Your task to perform on an android device: change the upload size in google photos Image 0: 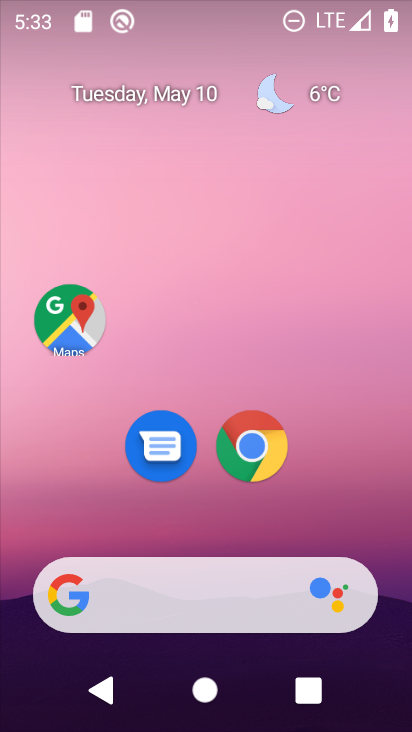
Step 0: click (259, 448)
Your task to perform on an android device: change the upload size in google photos Image 1: 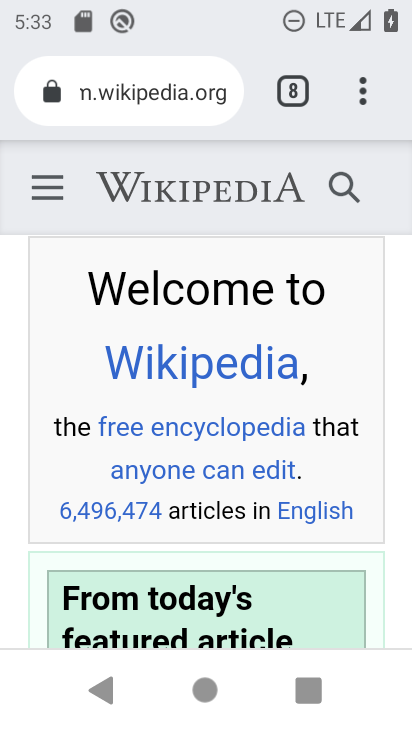
Step 1: press home button
Your task to perform on an android device: change the upload size in google photos Image 2: 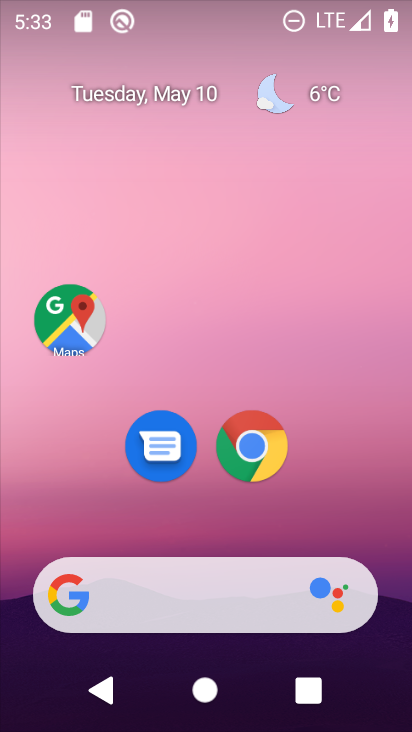
Step 2: drag from (306, 512) to (270, 114)
Your task to perform on an android device: change the upload size in google photos Image 3: 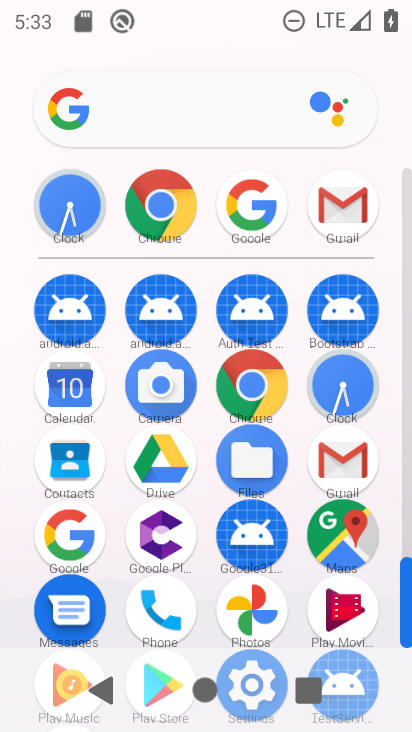
Step 3: click (262, 606)
Your task to perform on an android device: change the upload size in google photos Image 4: 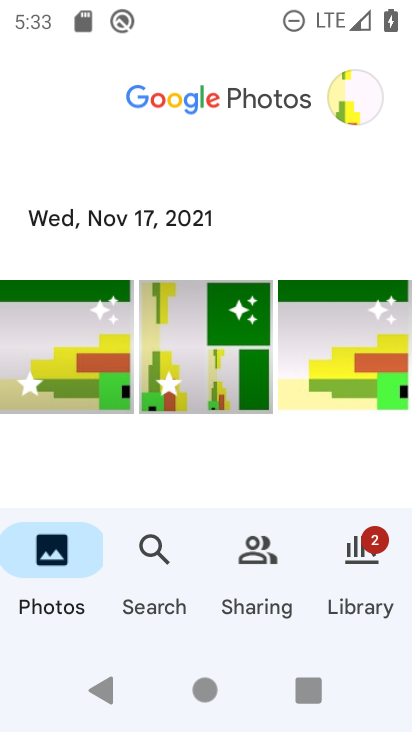
Step 4: click (352, 98)
Your task to perform on an android device: change the upload size in google photos Image 5: 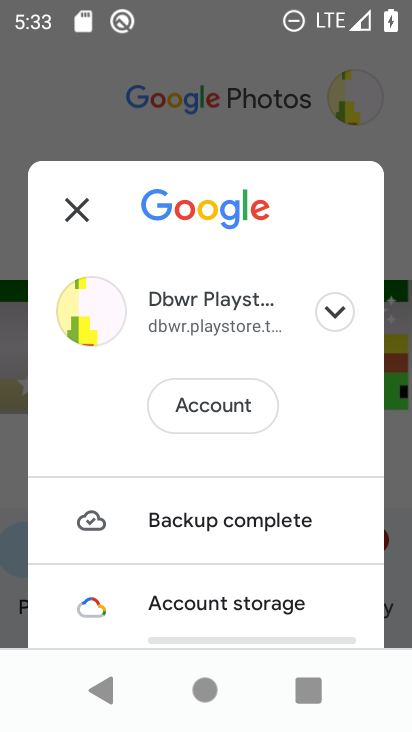
Step 5: drag from (212, 548) to (251, 186)
Your task to perform on an android device: change the upload size in google photos Image 6: 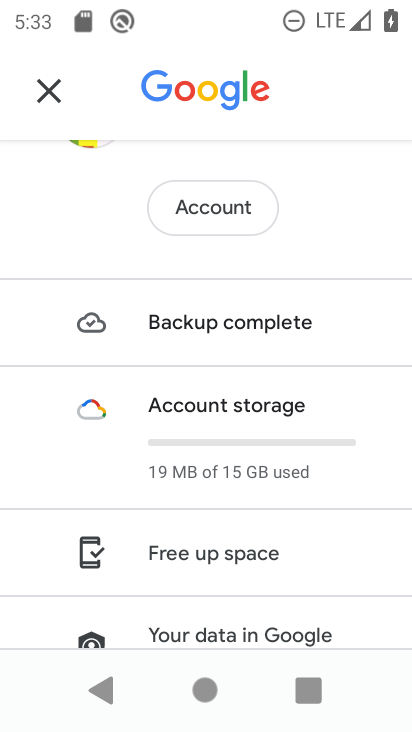
Step 6: drag from (203, 557) to (248, 247)
Your task to perform on an android device: change the upload size in google photos Image 7: 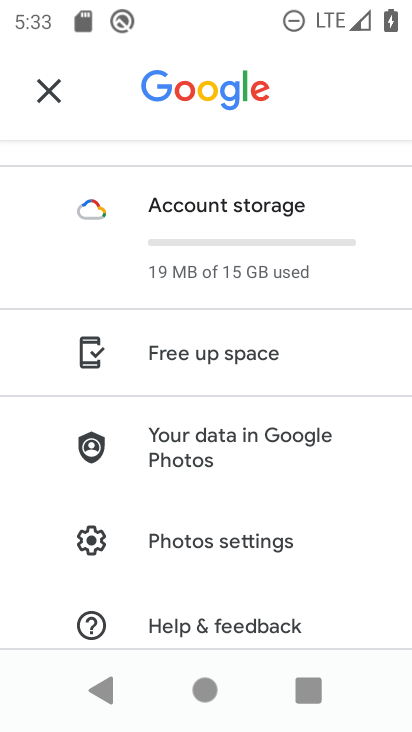
Step 7: click (219, 536)
Your task to perform on an android device: change the upload size in google photos Image 8: 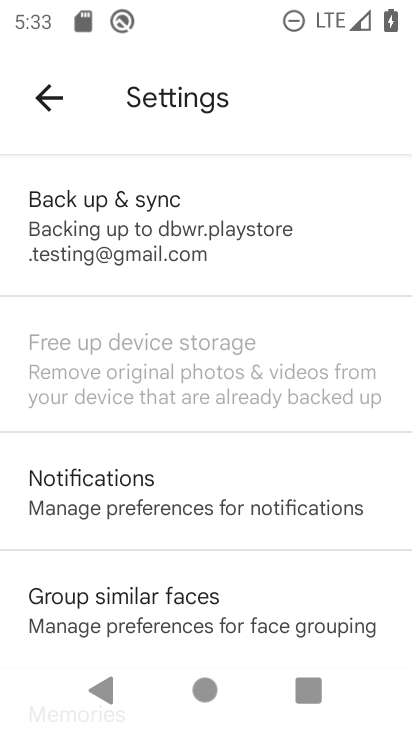
Step 8: click (143, 201)
Your task to perform on an android device: change the upload size in google photos Image 9: 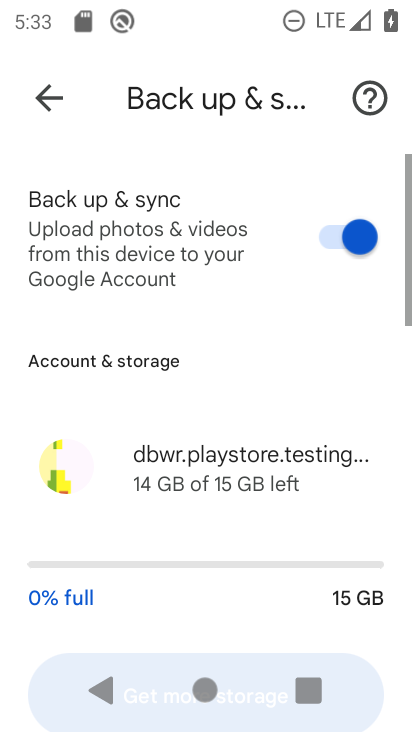
Step 9: drag from (143, 483) to (229, 196)
Your task to perform on an android device: change the upload size in google photos Image 10: 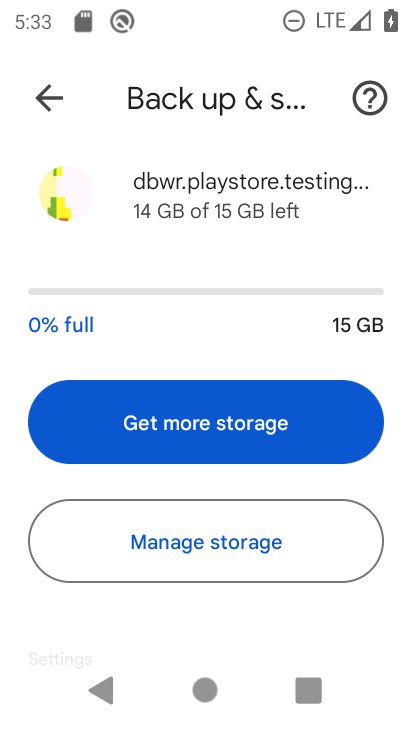
Step 10: drag from (124, 602) to (198, 223)
Your task to perform on an android device: change the upload size in google photos Image 11: 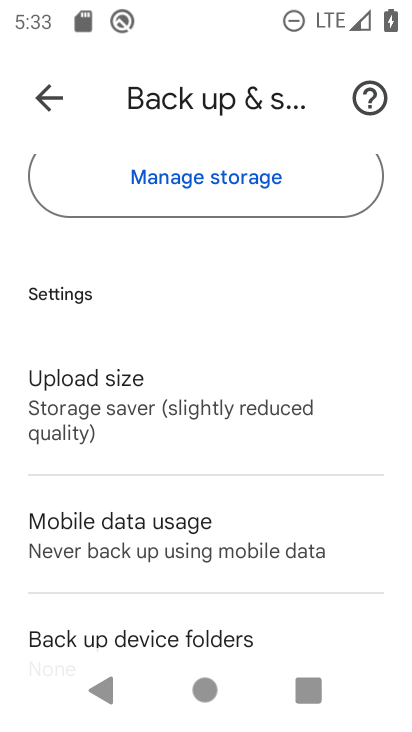
Step 11: click (133, 399)
Your task to perform on an android device: change the upload size in google photos Image 12: 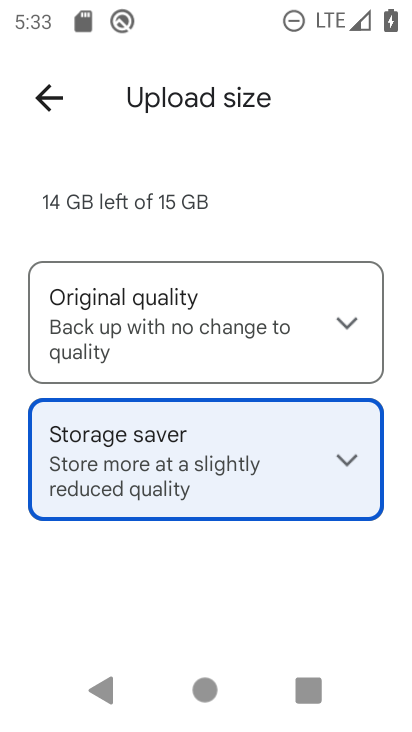
Step 12: click (194, 338)
Your task to perform on an android device: change the upload size in google photos Image 13: 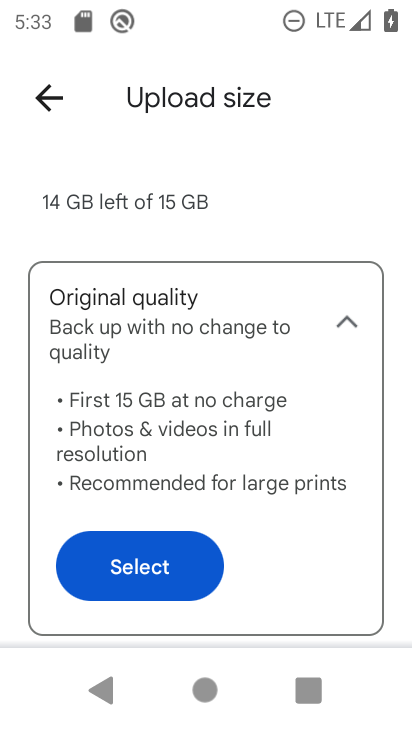
Step 13: click (144, 561)
Your task to perform on an android device: change the upload size in google photos Image 14: 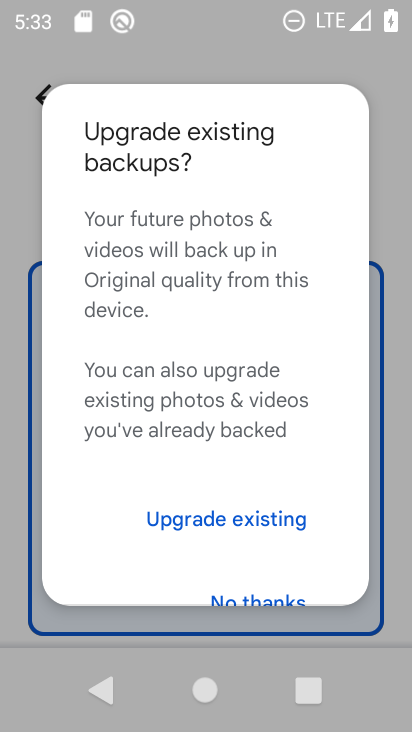
Step 14: task complete